Your task to perform on an android device: turn off priority inbox in the gmail app Image 0: 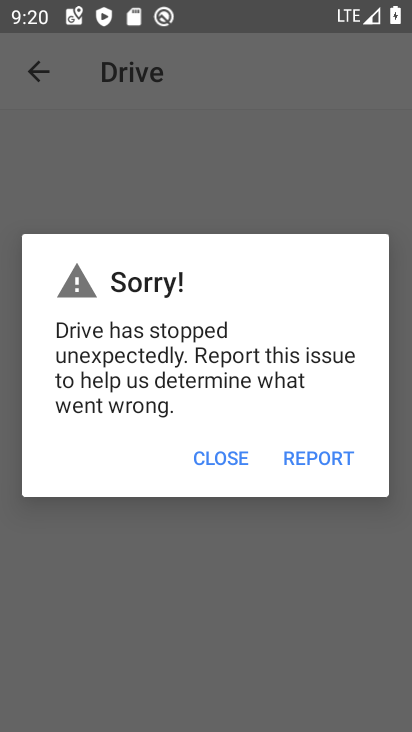
Step 0: press home button
Your task to perform on an android device: turn off priority inbox in the gmail app Image 1: 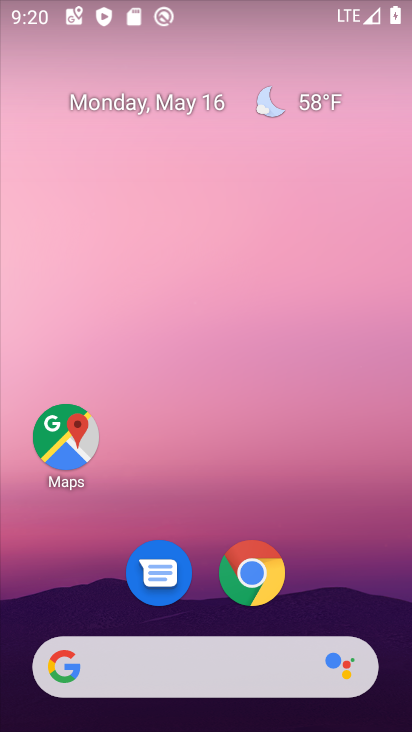
Step 1: drag from (213, 725) to (192, 112)
Your task to perform on an android device: turn off priority inbox in the gmail app Image 2: 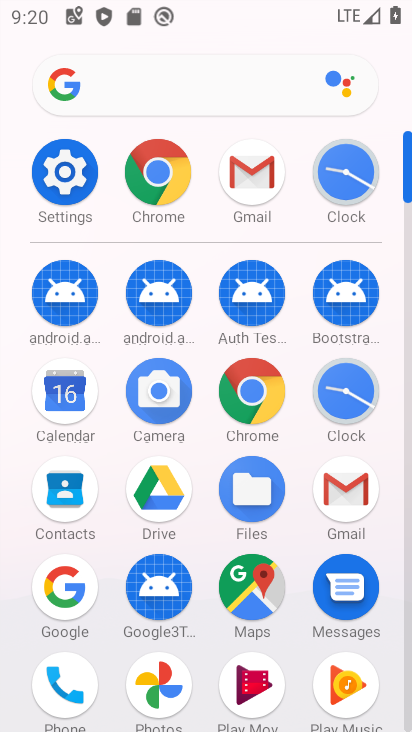
Step 2: click (260, 173)
Your task to perform on an android device: turn off priority inbox in the gmail app Image 3: 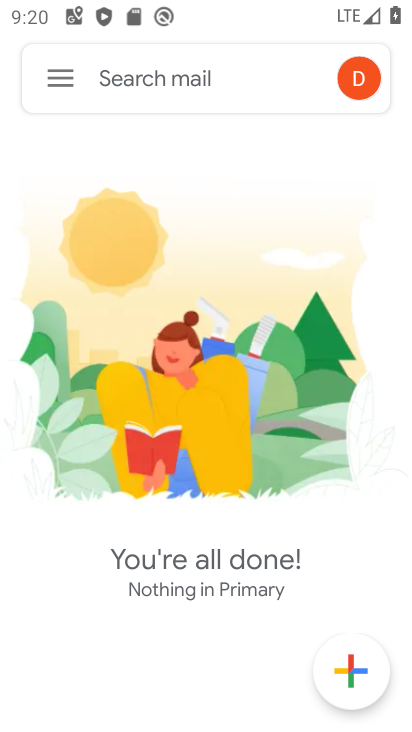
Step 3: click (53, 72)
Your task to perform on an android device: turn off priority inbox in the gmail app Image 4: 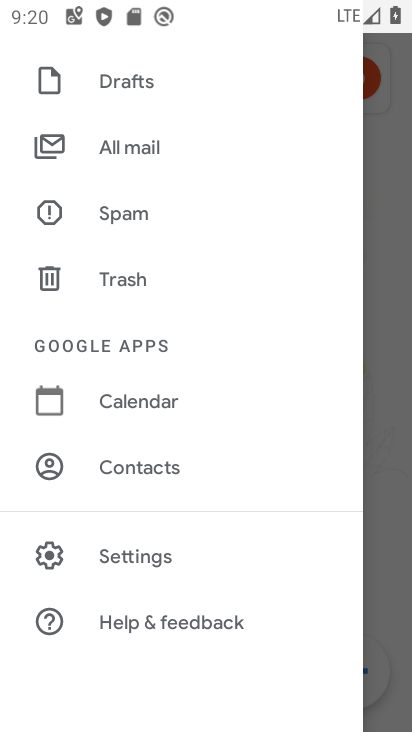
Step 4: click (131, 552)
Your task to perform on an android device: turn off priority inbox in the gmail app Image 5: 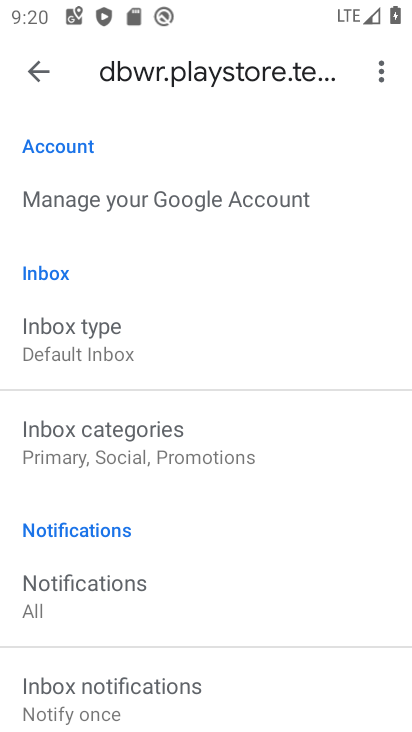
Step 5: task complete